Your task to perform on an android device: change notifications settings Image 0: 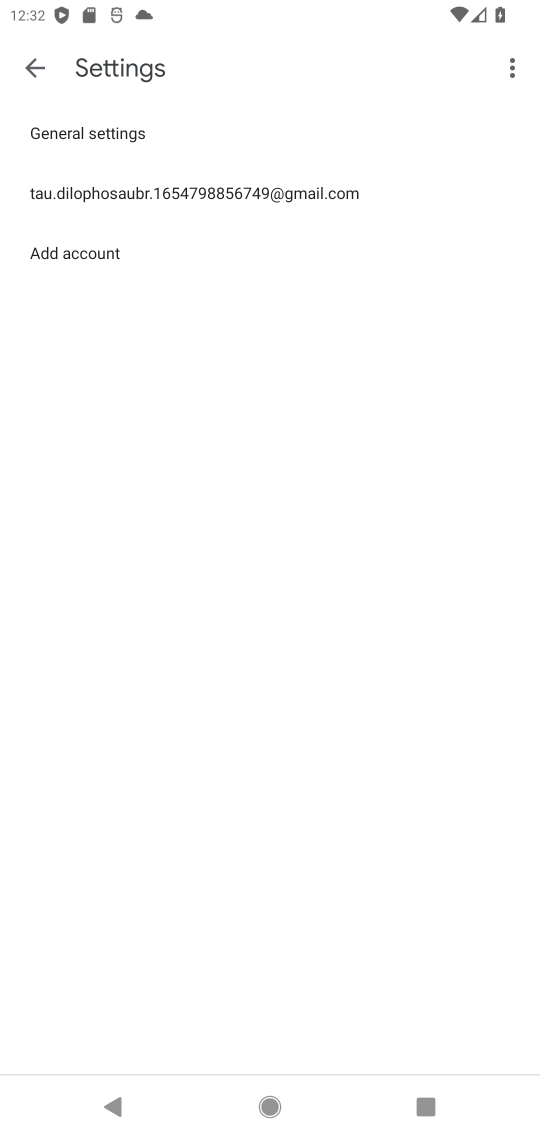
Step 0: press home button
Your task to perform on an android device: change notifications settings Image 1: 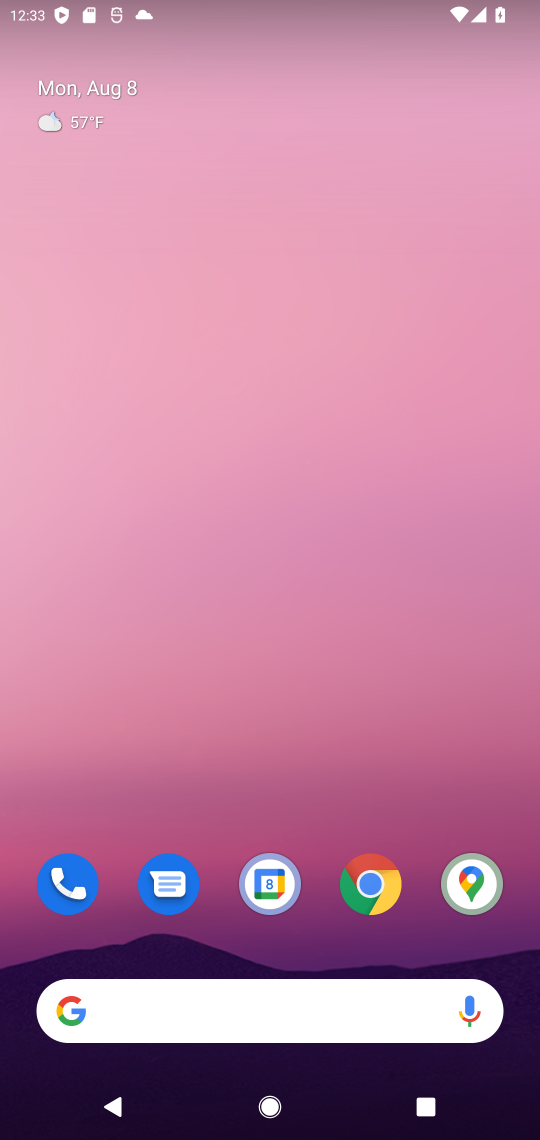
Step 1: drag from (174, 1076) to (410, 130)
Your task to perform on an android device: change notifications settings Image 2: 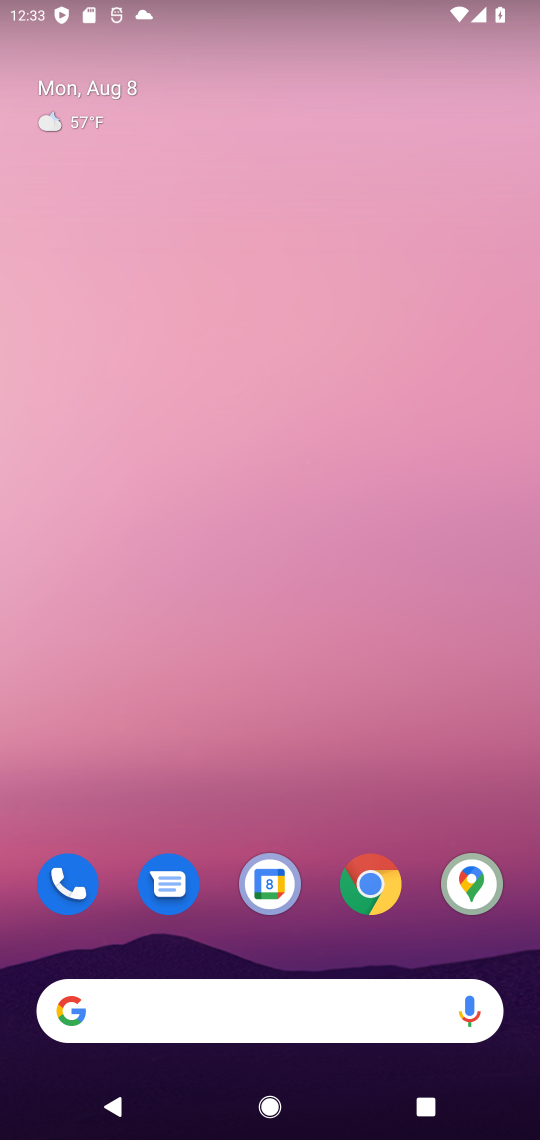
Step 2: drag from (244, 1081) to (393, 196)
Your task to perform on an android device: change notifications settings Image 3: 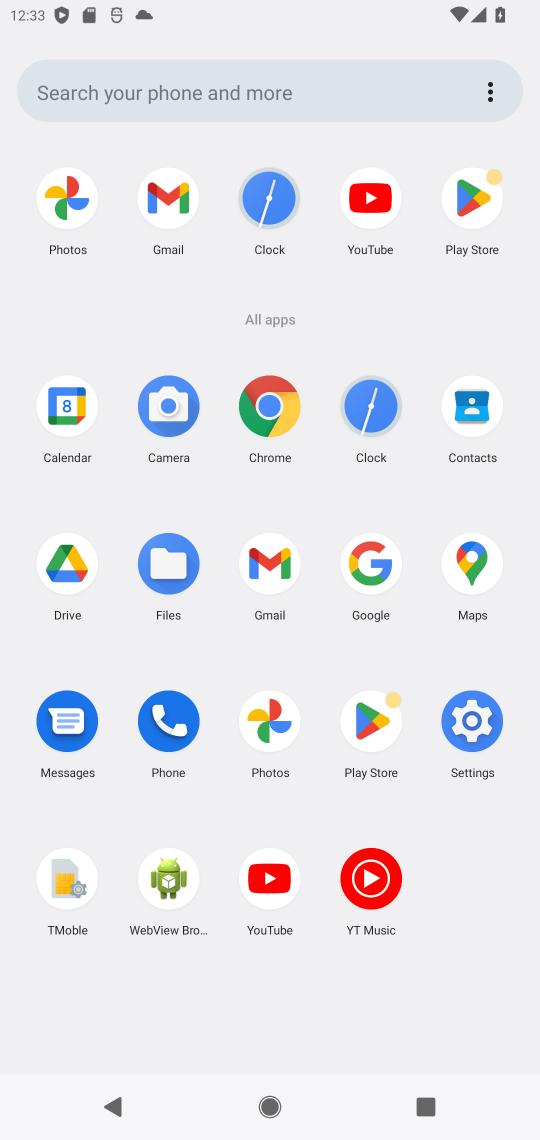
Step 3: click (478, 728)
Your task to perform on an android device: change notifications settings Image 4: 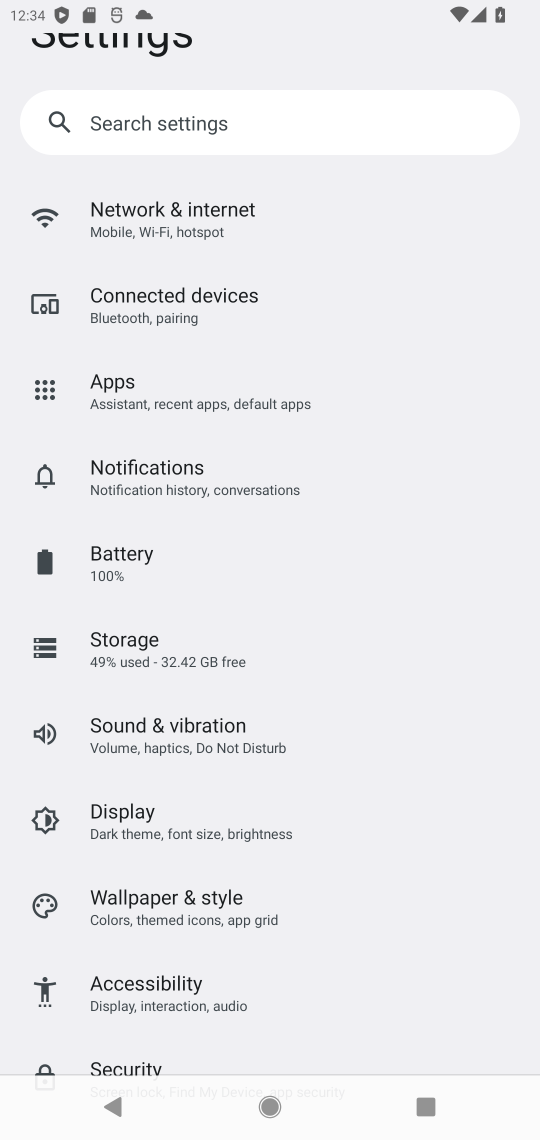
Step 4: click (263, 476)
Your task to perform on an android device: change notifications settings Image 5: 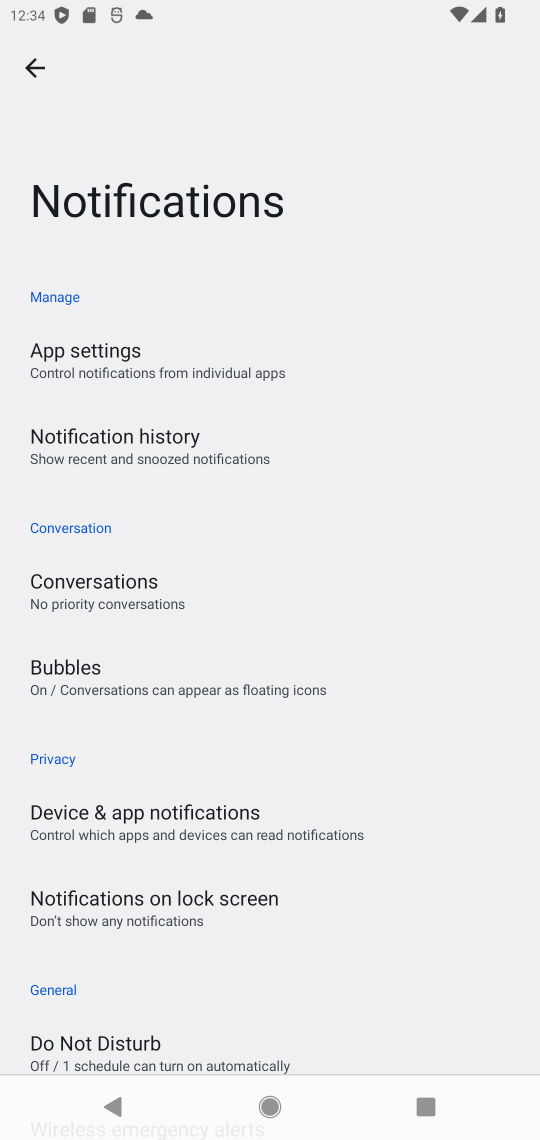
Step 5: click (178, 426)
Your task to perform on an android device: change notifications settings Image 6: 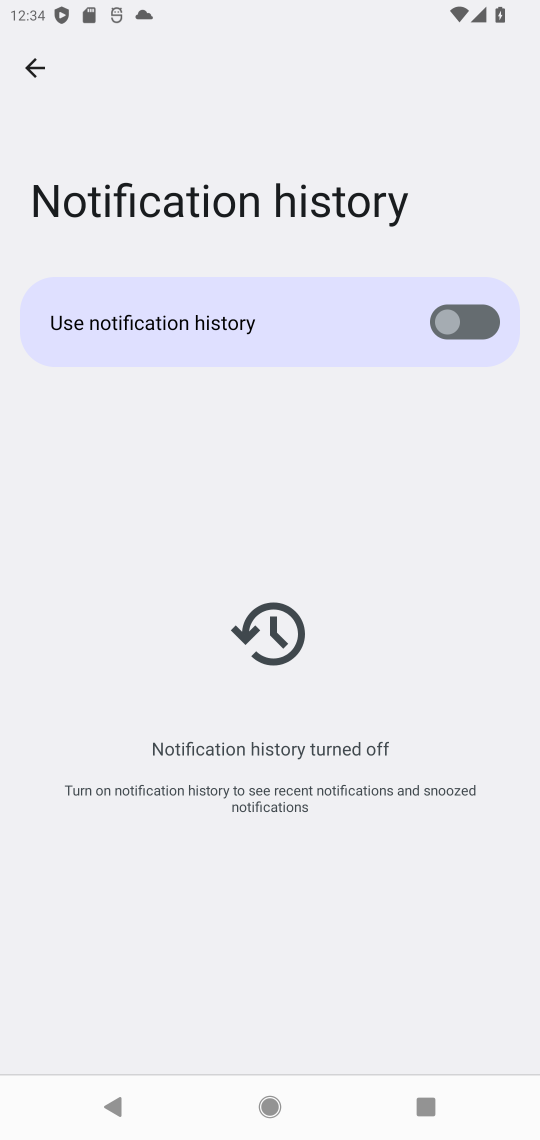
Step 6: click (471, 301)
Your task to perform on an android device: change notifications settings Image 7: 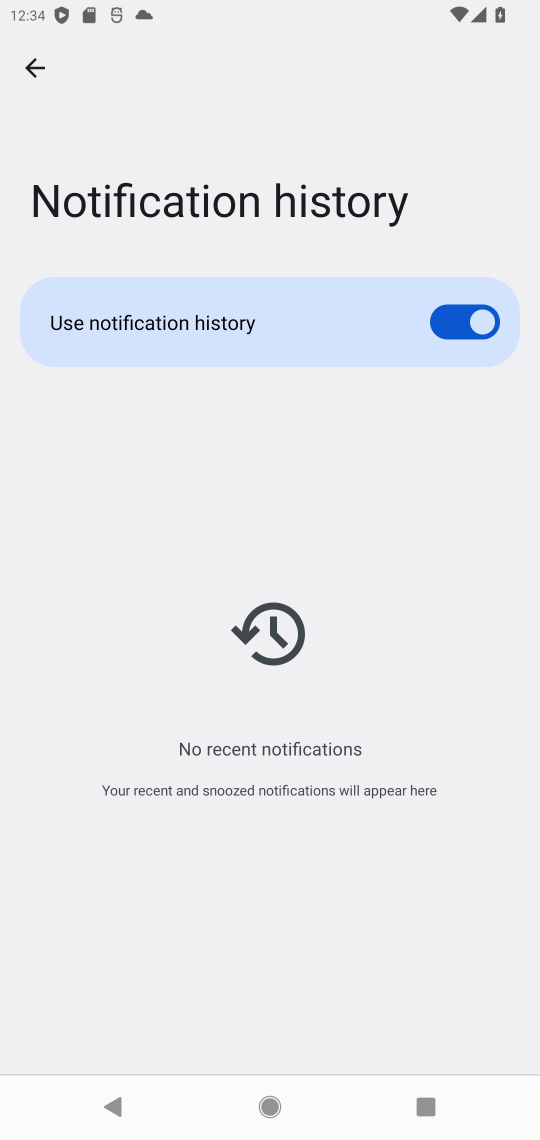
Step 7: task complete